Your task to perform on an android device: Open Wikipedia Image 0: 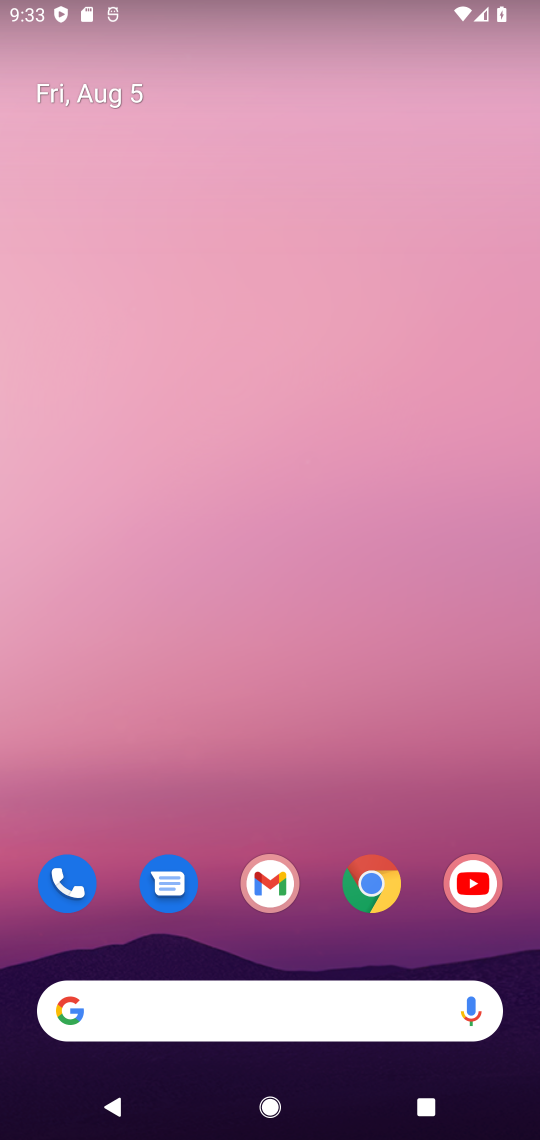
Step 0: click (367, 874)
Your task to perform on an android device: Open Wikipedia Image 1: 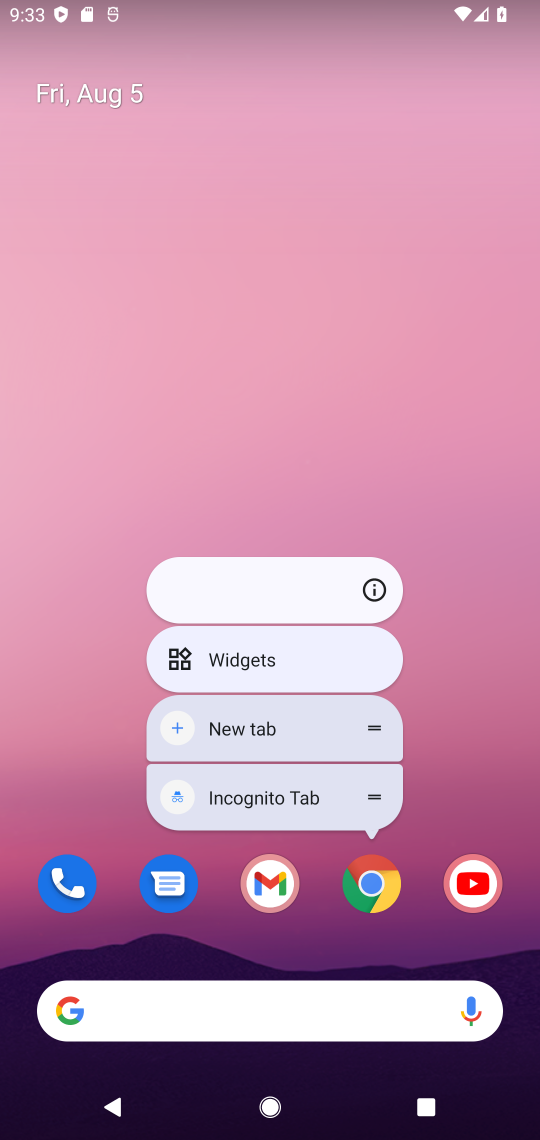
Step 1: click (367, 874)
Your task to perform on an android device: Open Wikipedia Image 2: 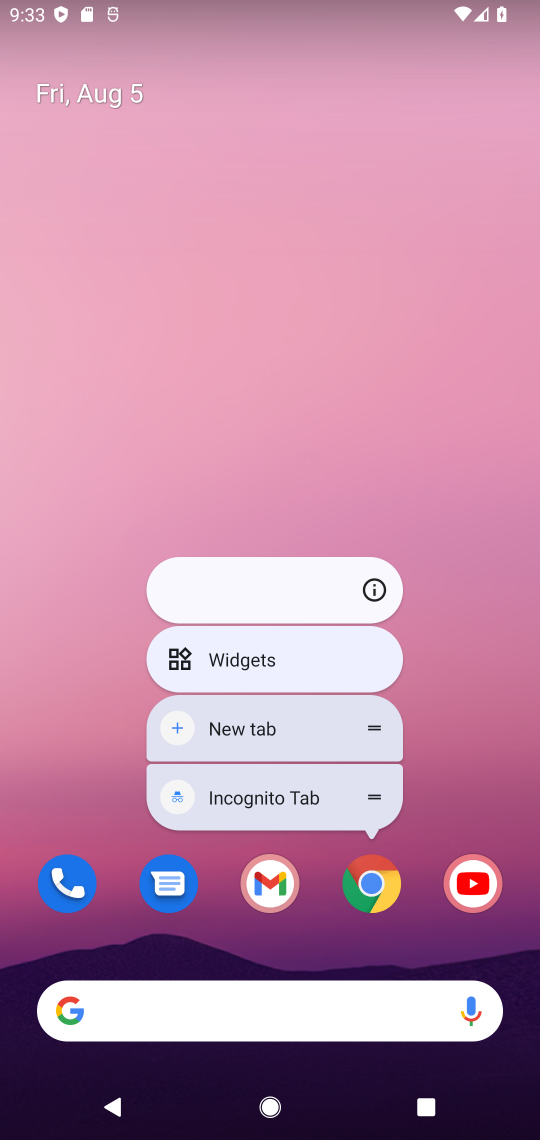
Step 2: click (367, 876)
Your task to perform on an android device: Open Wikipedia Image 3: 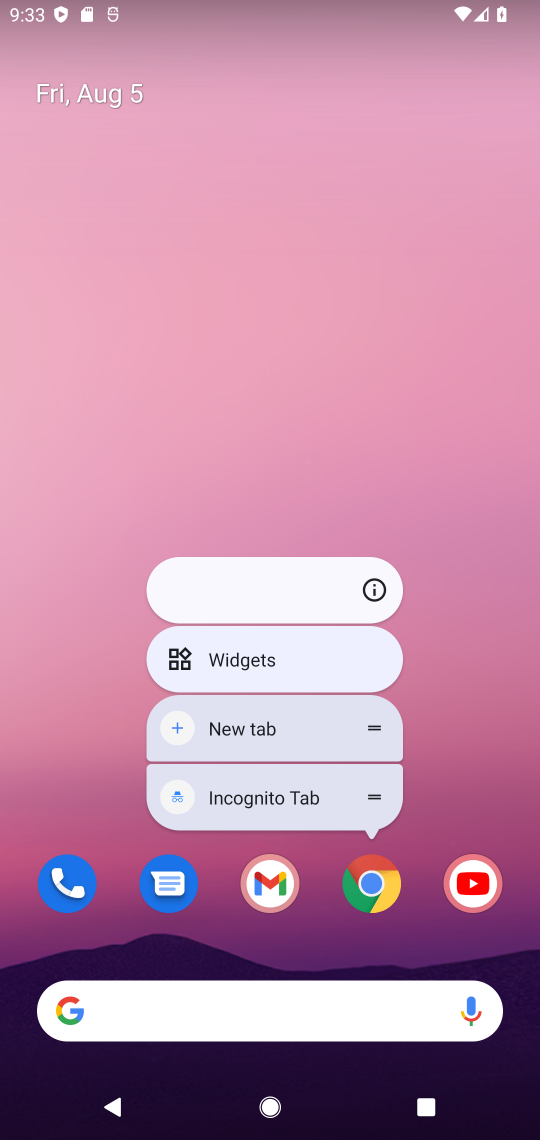
Step 3: click (367, 876)
Your task to perform on an android device: Open Wikipedia Image 4: 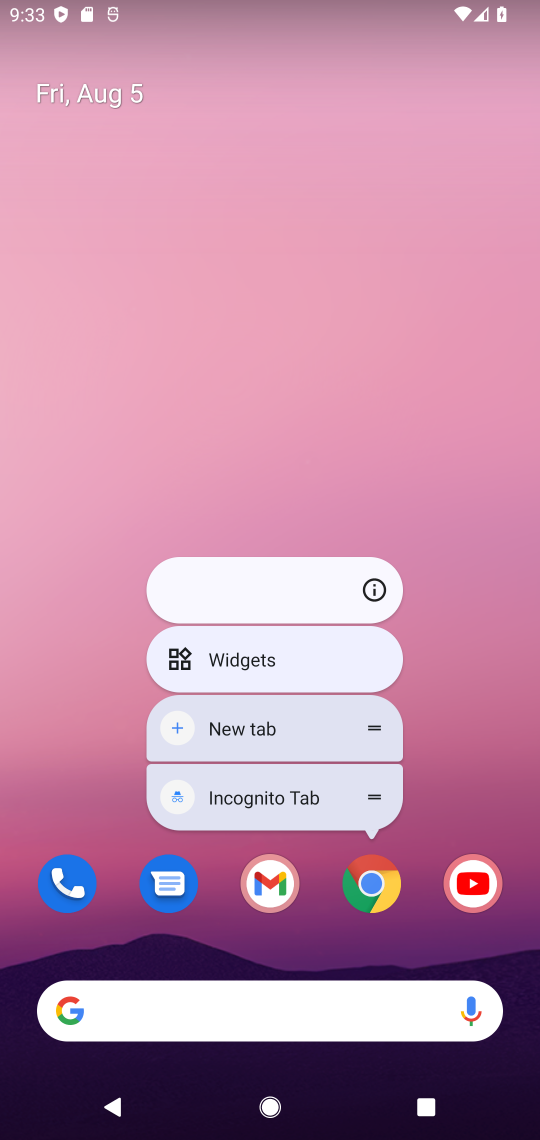
Step 4: click (367, 876)
Your task to perform on an android device: Open Wikipedia Image 5: 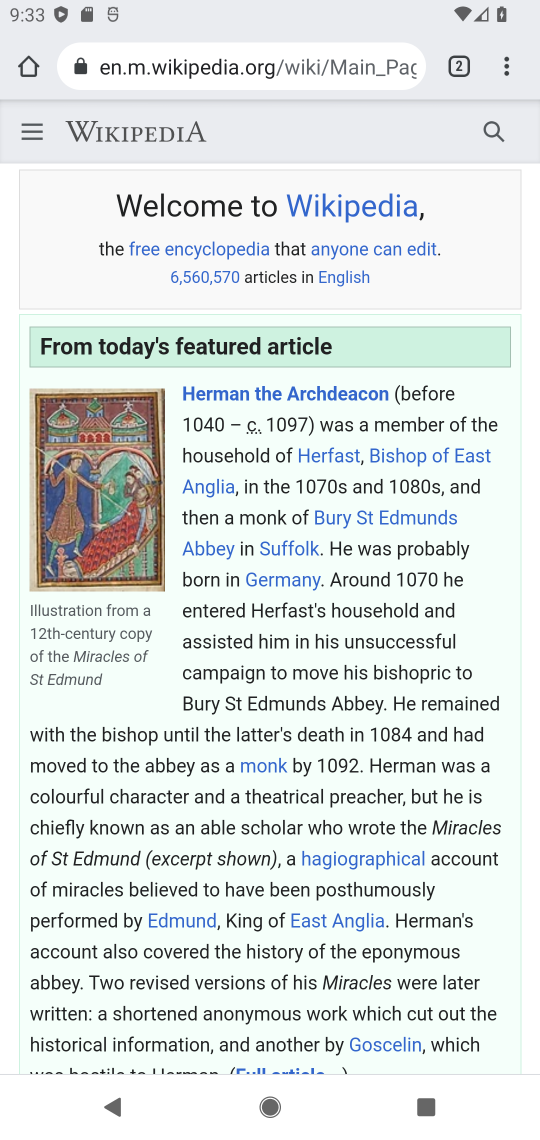
Step 5: task complete